Your task to perform on an android device: Do I have any events this weekend? Image 0: 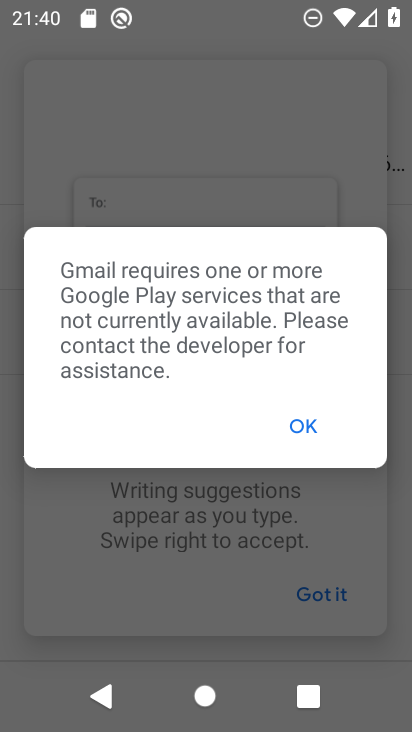
Step 0: press home button
Your task to perform on an android device: Do I have any events this weekend? Image 1: 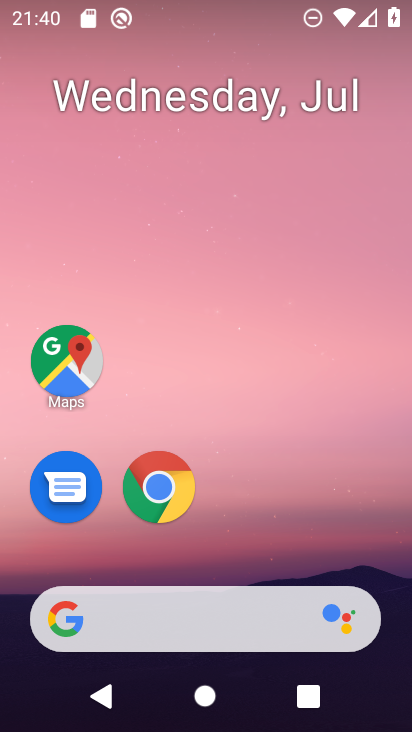
Step 1: drag from (343, 533) to (380, 83)
Your task to perform on an android device: Do I have any events this weekend? Image 2: 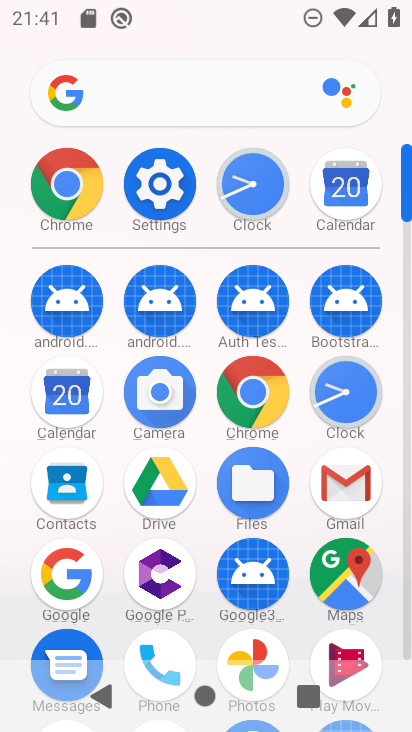
Step 2: click (56, 385)
Your task to perform on an android device: Do I have any events this weekend? Image 3: 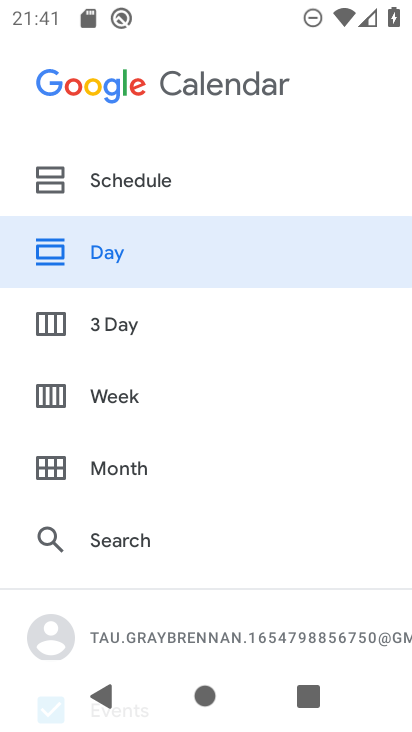
Step 3: click (142, 175)
Your task to perform on an android device: Do I have any events this weekend? Image 4: 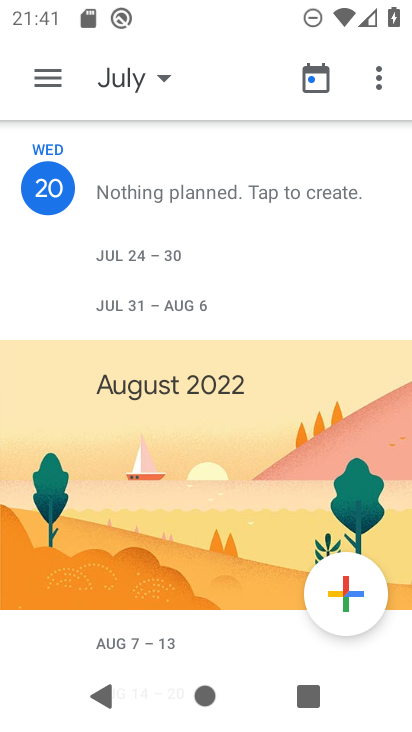
Step 4: click (164, 80)
Your task to perform on an android device: Do I have any events this weekend? Image 5: 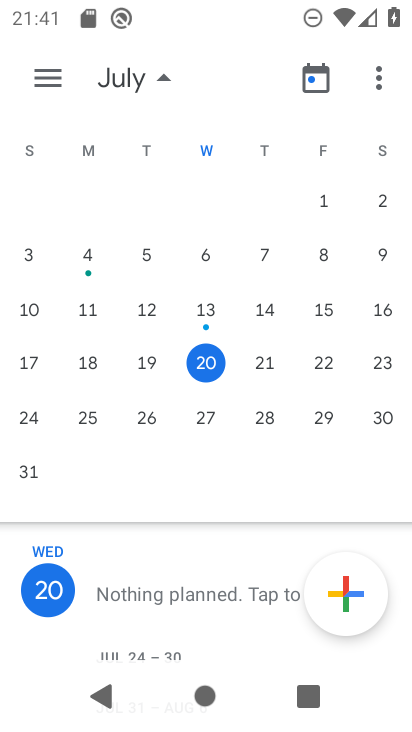
Step 5: task complete